Your task to perform on an android device: turn off airplane mode Image 0: 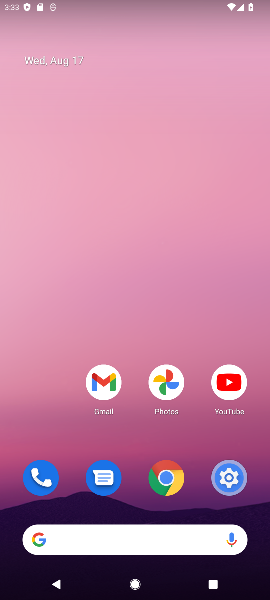
Step 0: drag from (140, 446) to (139, 0)
Your task to perform on an android device: turn off airplane mode Image 1: 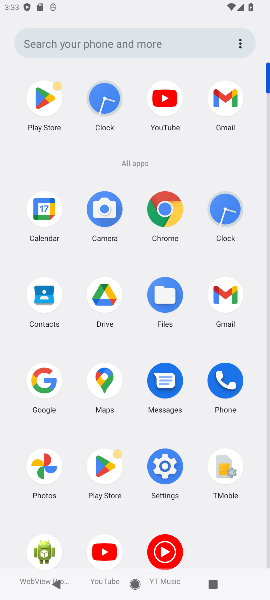
Step 1: click (157, 453)
Your task to perform on an android device: turn off airplane mode Image 2: 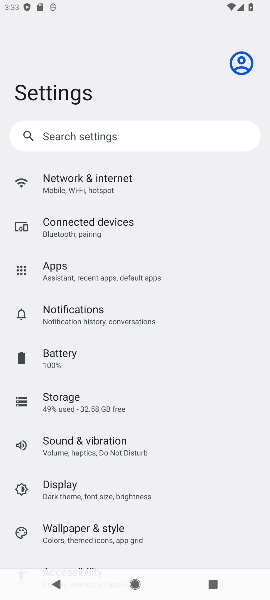
Step 2: click (94, 185)
Your task to perform on an android device: turn off airplane mode Image 3: 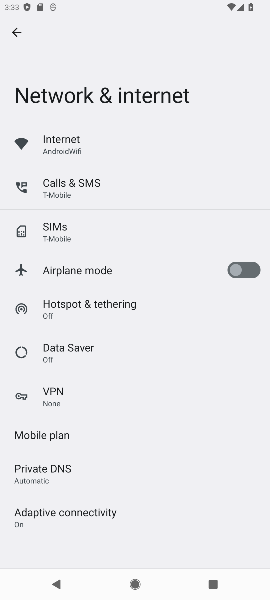
Step 3: task complete